Your task to perform on an android device: Go to location settings Image 0: 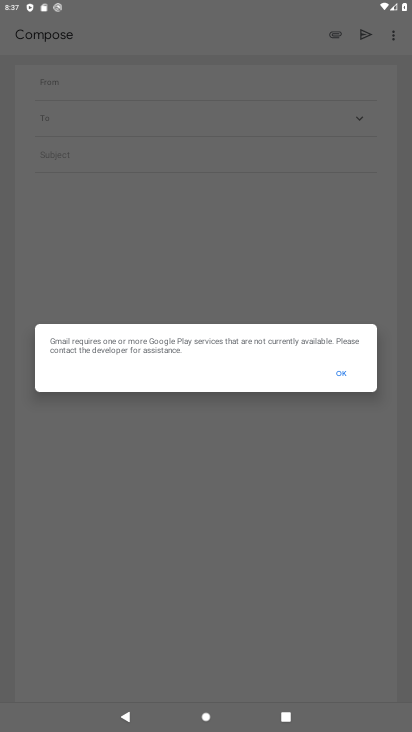
Step 0: press home button
Your task to perform on an android device: Go to location settings Image 1: 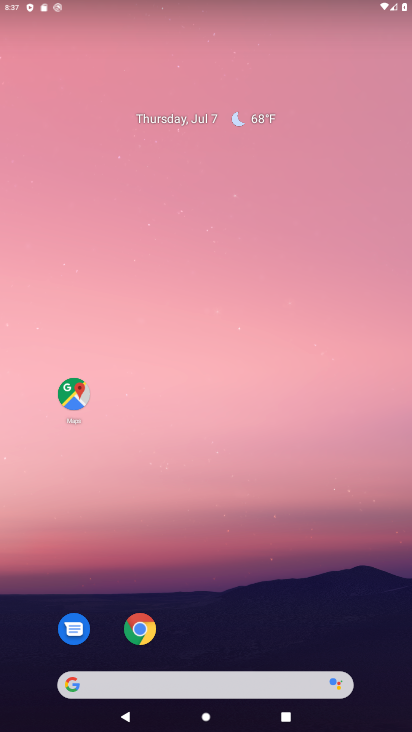
Step 1: drag from (265, 630) to (299, 94)
Your task to perform on an android device: Go to location settings Image 2: 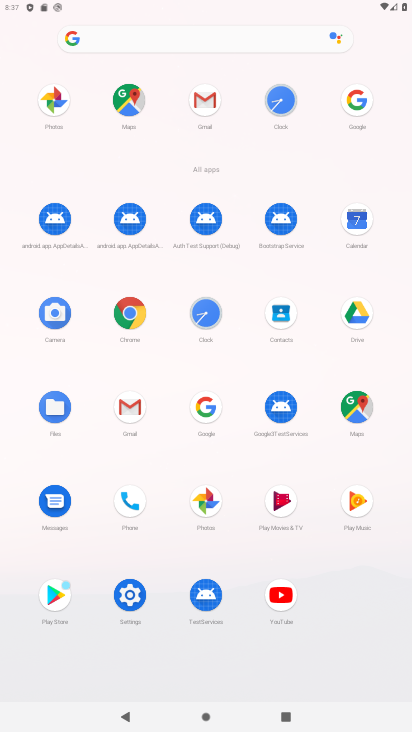
Step 2: click (129, 605)
Your task to perform on an android device: Go to location settings Image 3: 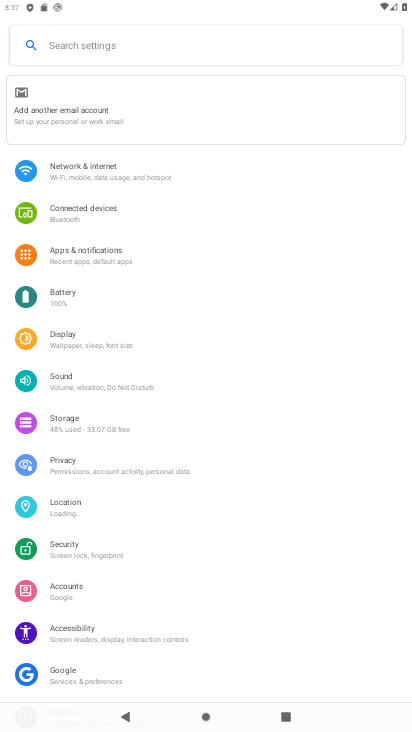
Step 3: click (117, 515)
Your task to perform on an android device: Go to location settings Image 4: 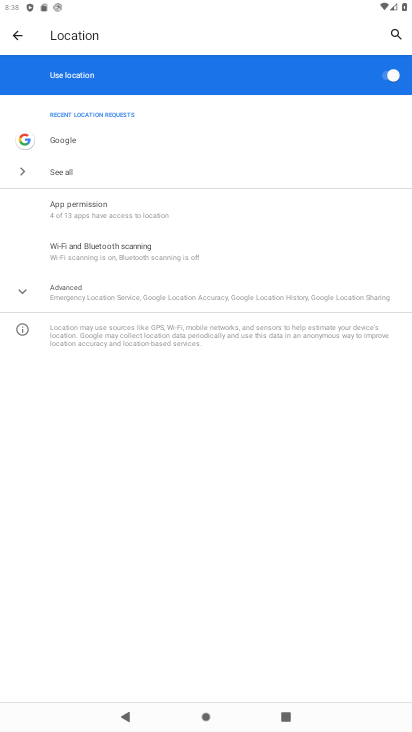
Step 4: task complete